Your task to perform on an android device: Open Chrome and go to the settings page Image 0: 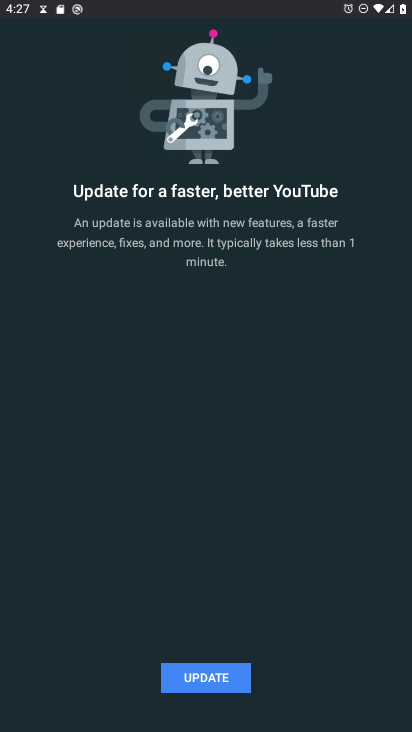
Step 0: press home button
Your task to perform on an android device: Open Chrome and go to the settings page Image 1: 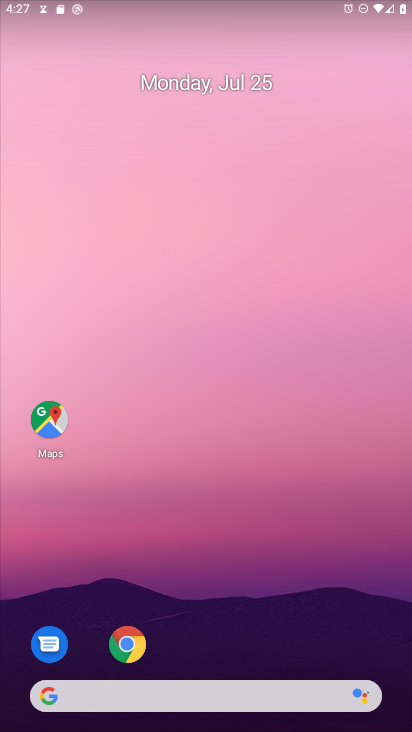
Step 1: click (130, 644)
Your task to perform on an android device: Open Chrome and go to the settings page Image 2: 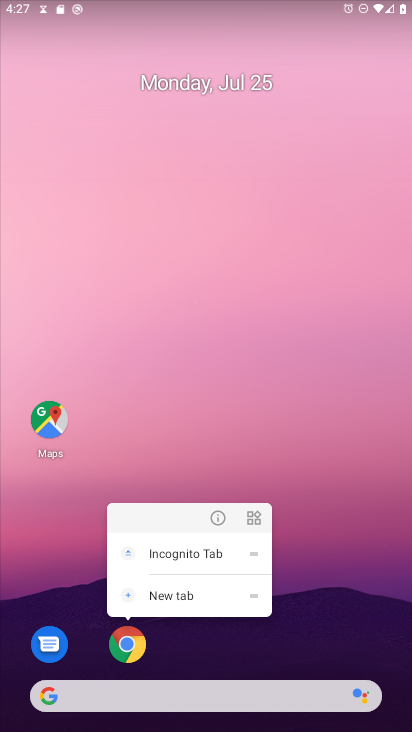
Step 2: click (132, 641)
Your task to perform on an android device: Open Chrome and go to the settings page Image 3: 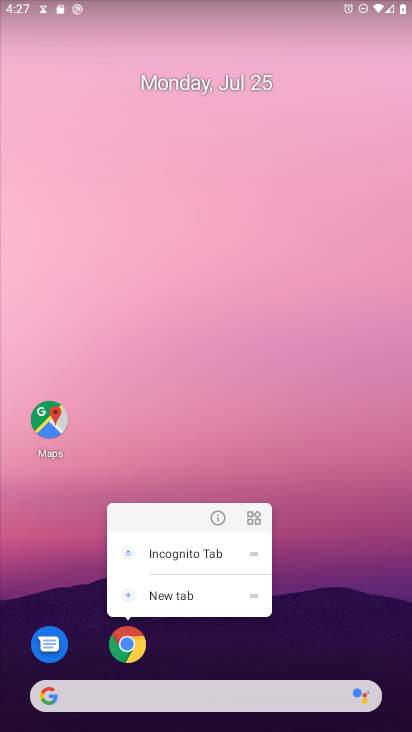
Step 3: click (131, 641)
Your task to perform on an android device: Open Chrome and go to the settings page Image 4: 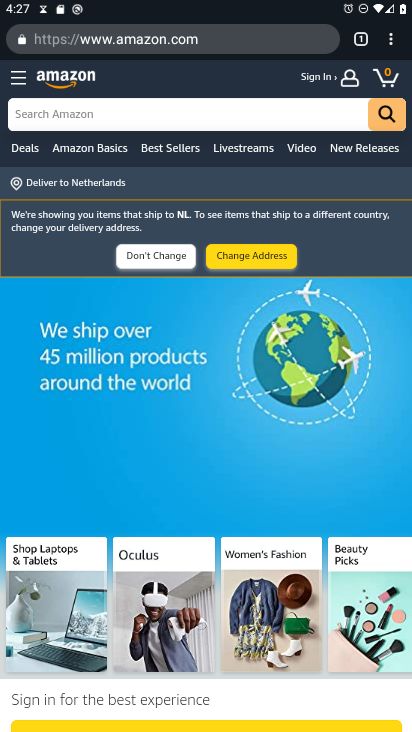
Step 4: task complete